Your task to perform on an android device: Search for "asus rog" on newegg.com, select the first entry, add it to the cart, then select checkout. Image 0: 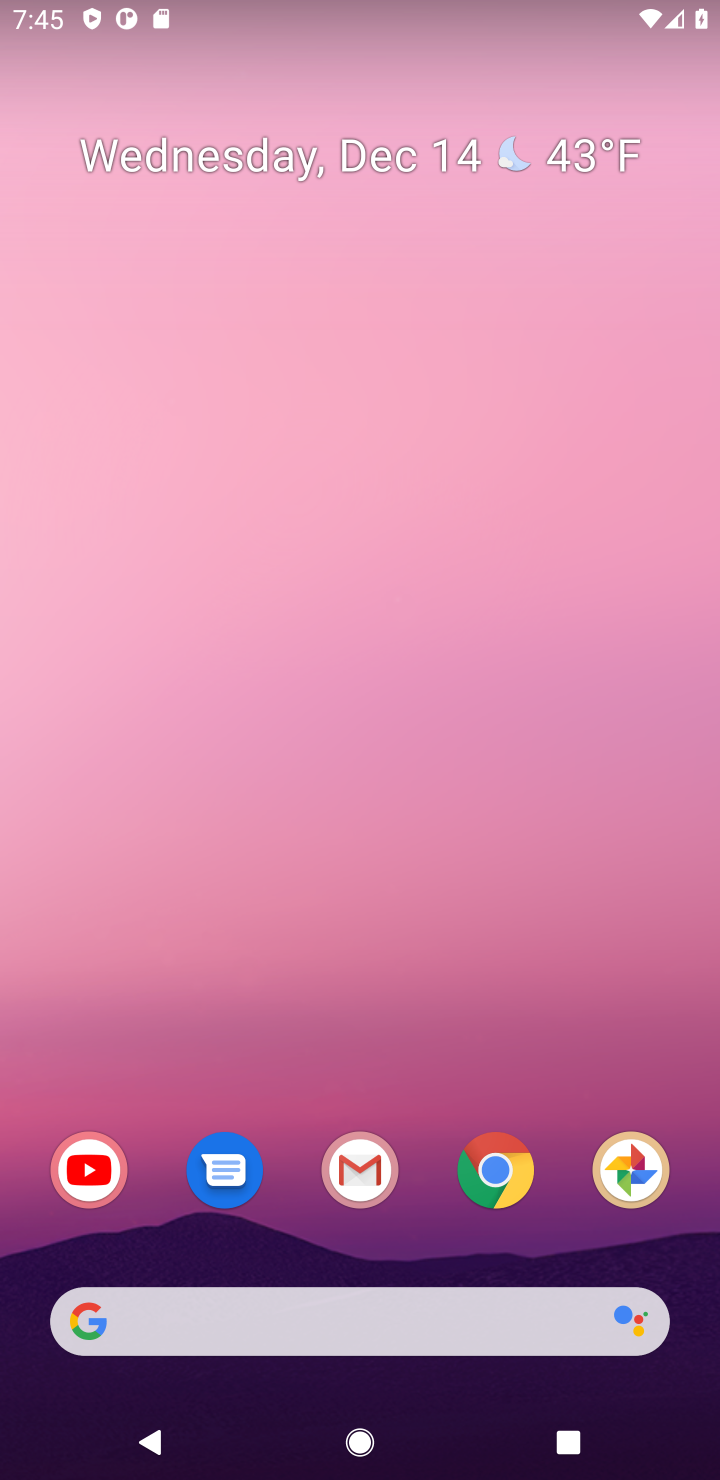
Step 0: click (491, 1166)
Your task to perform on an android device: Search for "asus rog" on newegg.com, select the first entry, add it to the cart, then select checkout. Image 1: 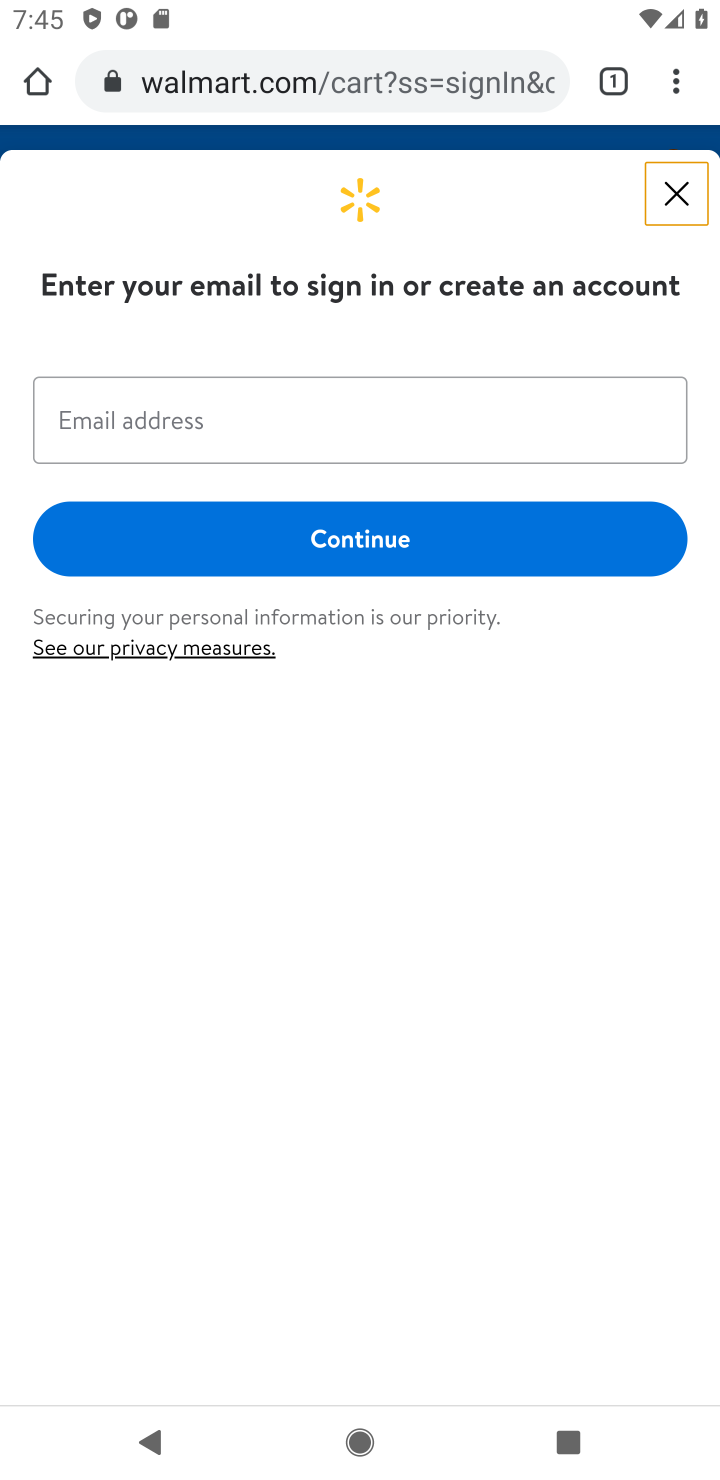
Step 1: click (669, 187)
Your task to perform on an android device: Search for "asus rog" on newegg.com, select the first entry, add it to the cart, then select checkout. Image 2: 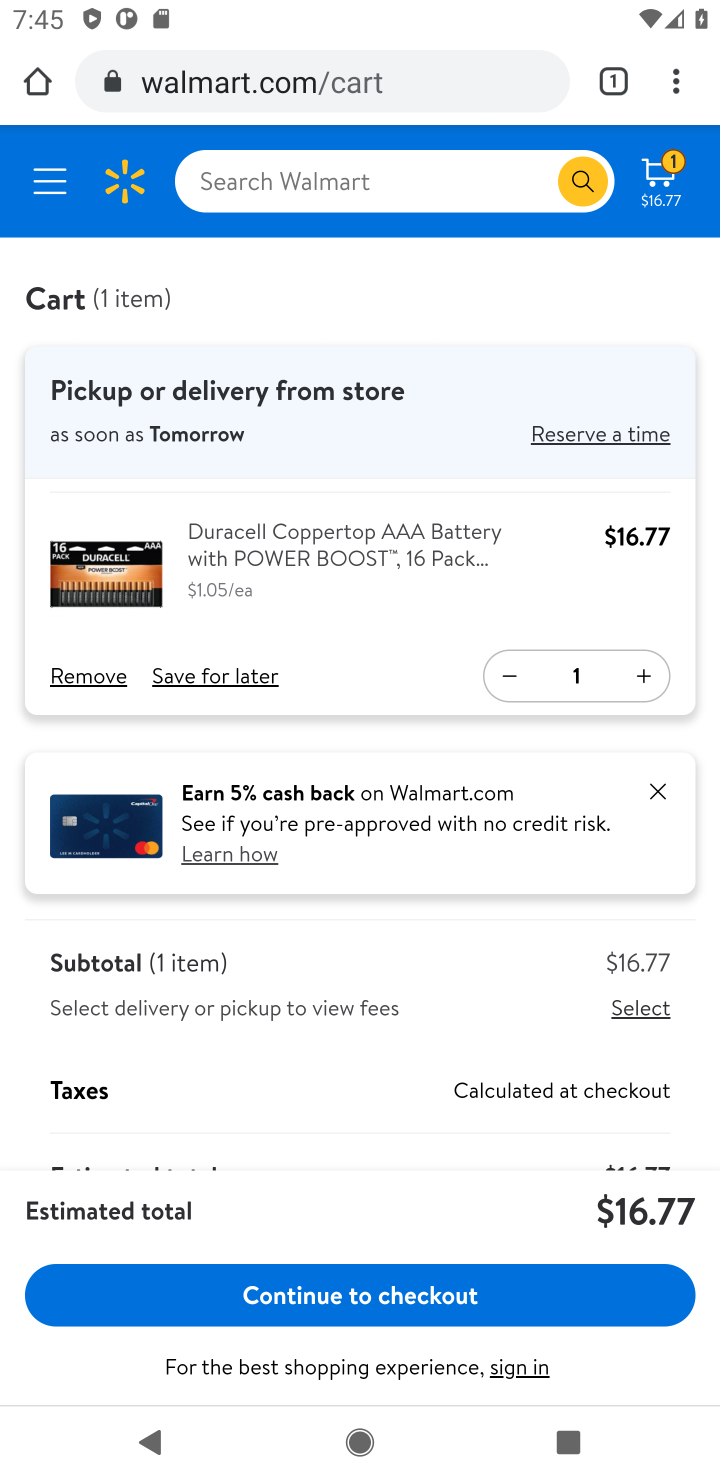
Step 2: click (357, 75)
Your task to perform on an android device: Search for "asus rog" on newegg.com, select the first entry, add it to the cart, then select checkout. Image 3: 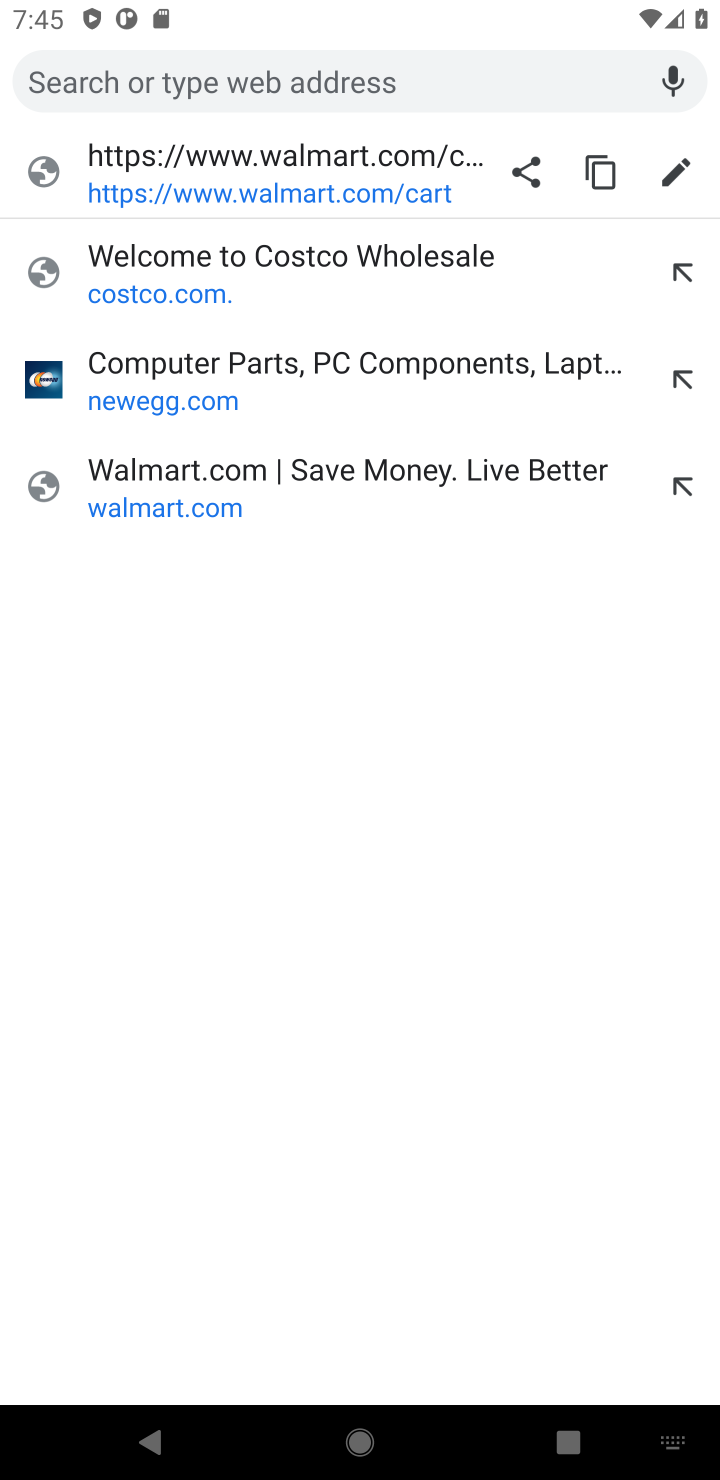
Step 3: click (328, 381)
Your task to perform on an android device: Search for "asus rog" on newegg.com, select the first entry, add it to the cart, then select checkout. Image 4: 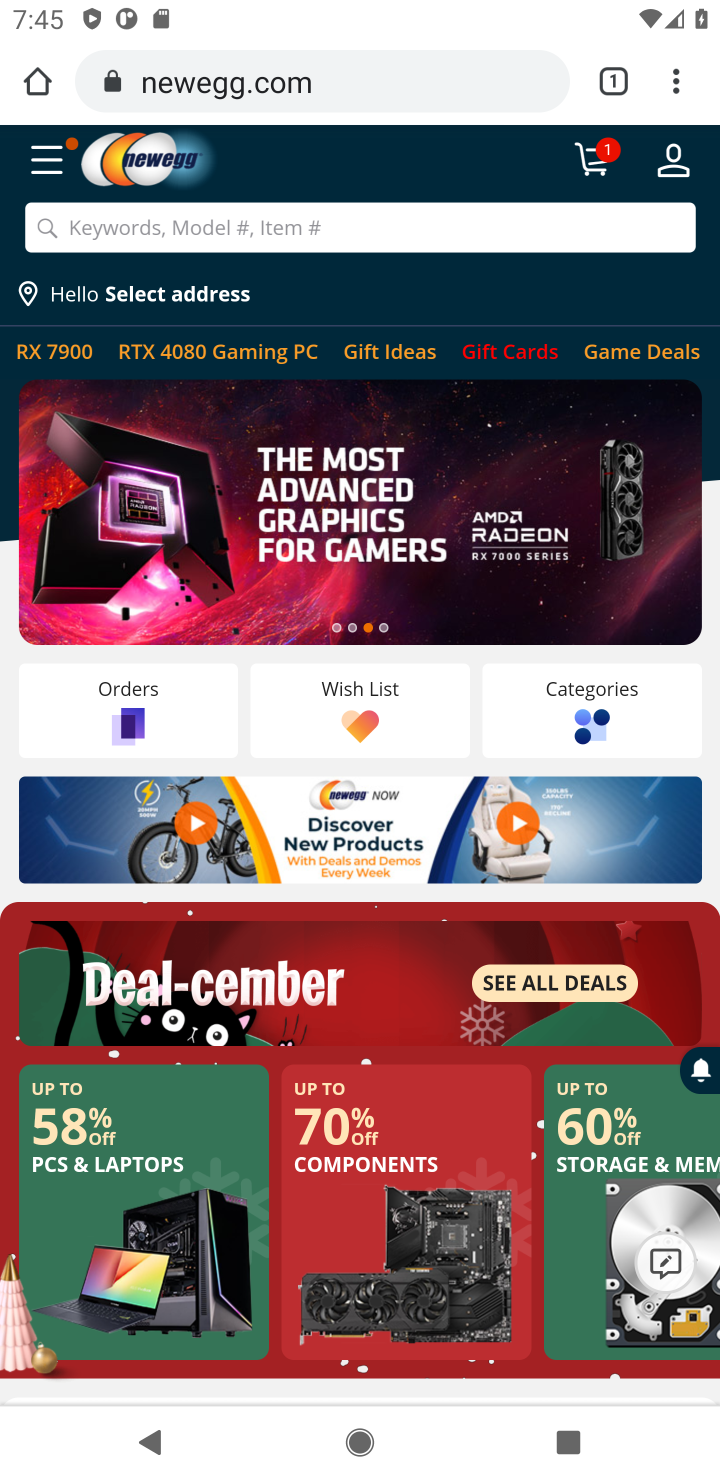
Step 4: click (340, 220)
Your task to perform on an android device: Search for "asus rog" on newegg.com, select the first entry, add it to the cart, then select checkout. Image 5: 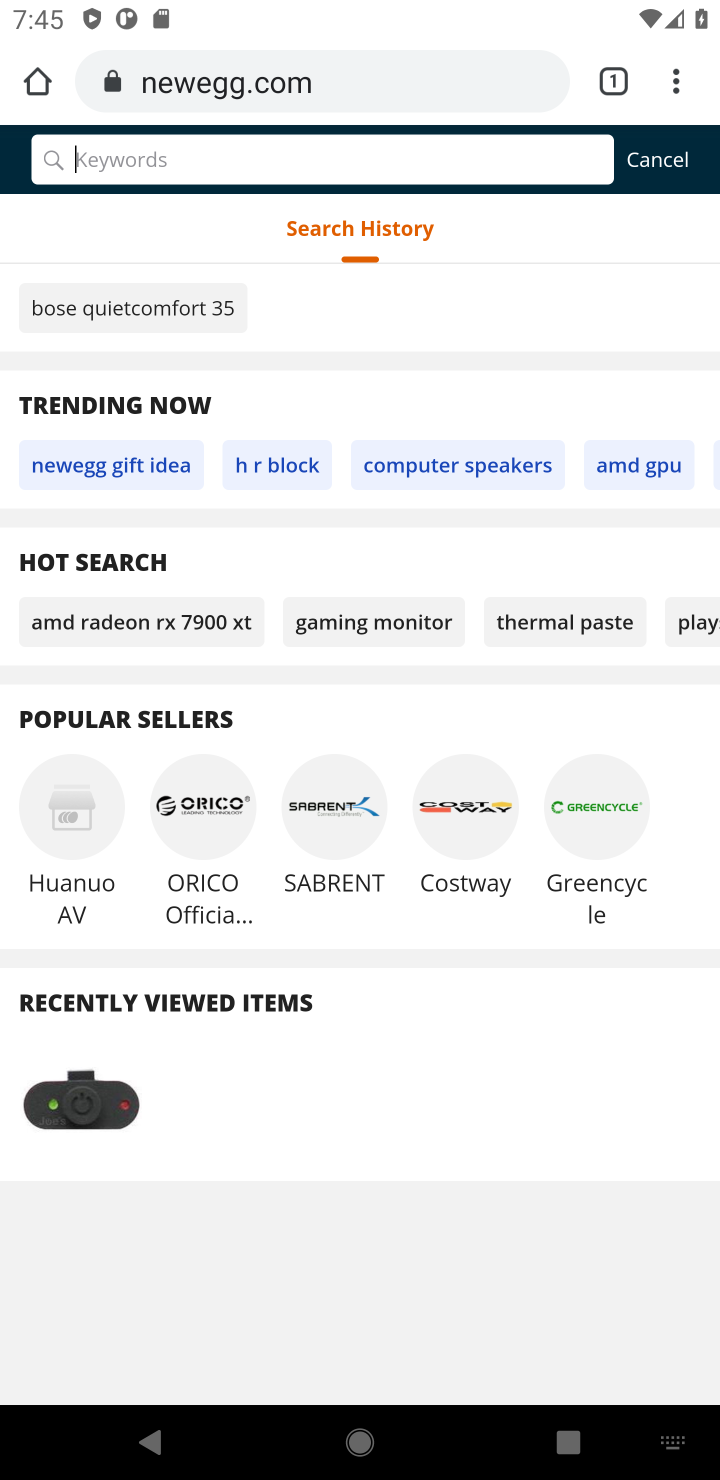
Step 5: type "asus rog"
Your task to perform on an android device: Search for "asus rog" on newegg.com, select the first entry, add it to the cart, then select checkout. Image 6: 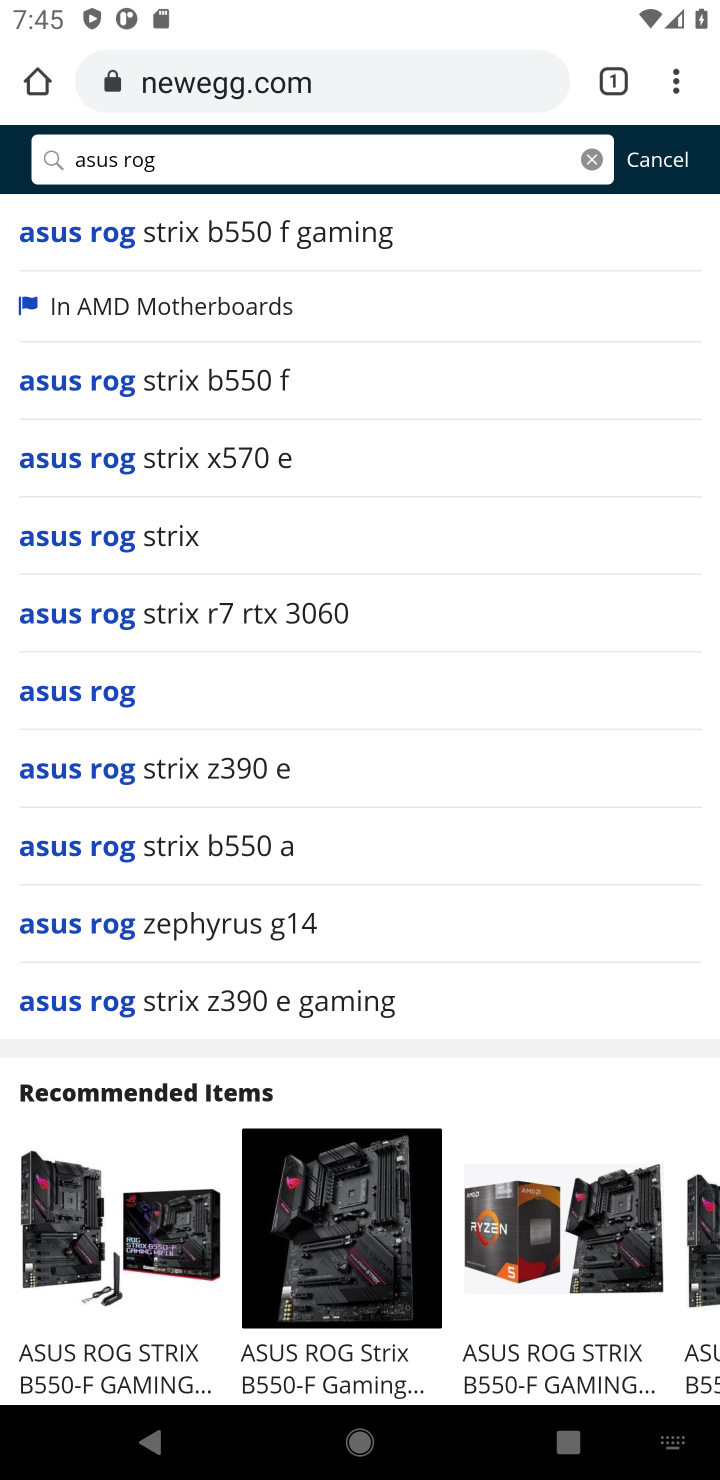
Step 6: click (150, 241)
Your task to perform on an android device: Search for "asus rog" on newegg.com, select the first entry, add it to the cart, then select checkout. Image 7: 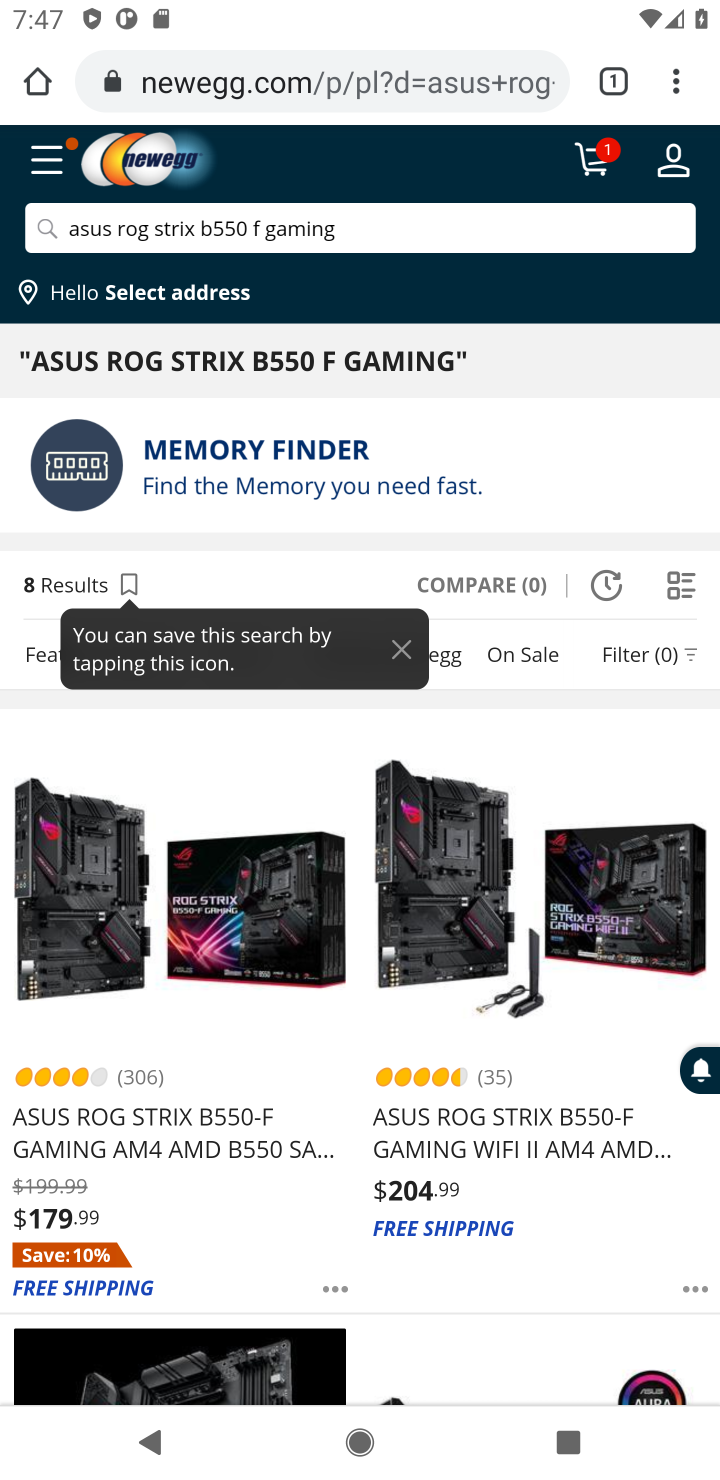
Step 7: click (267, 985)
Your task to perform on an android device: Search for "asus rog" on newegg.com, select the first entry, add it to the cart, then select checkout. Image 8: 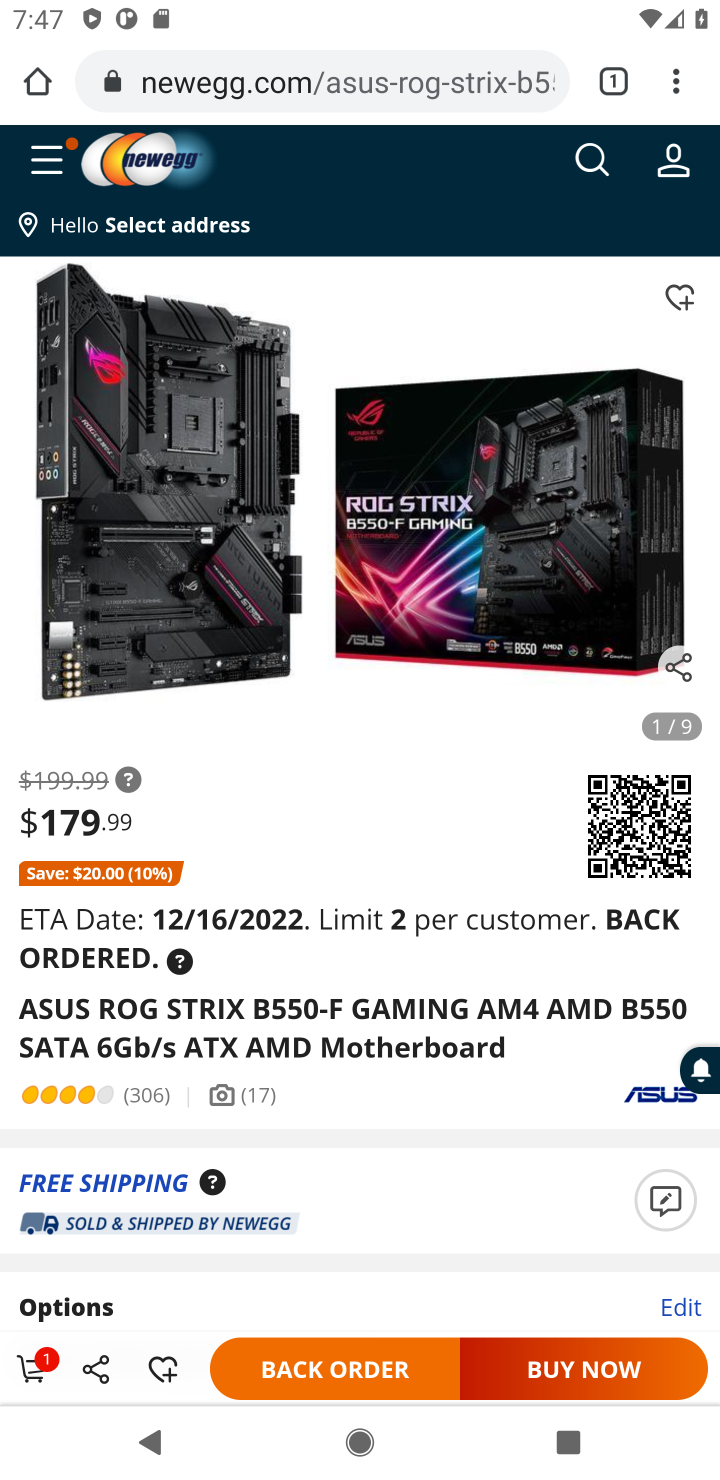
Step 8: task complete